Your task to perform on an android device: Open Reddit.com Image 0: 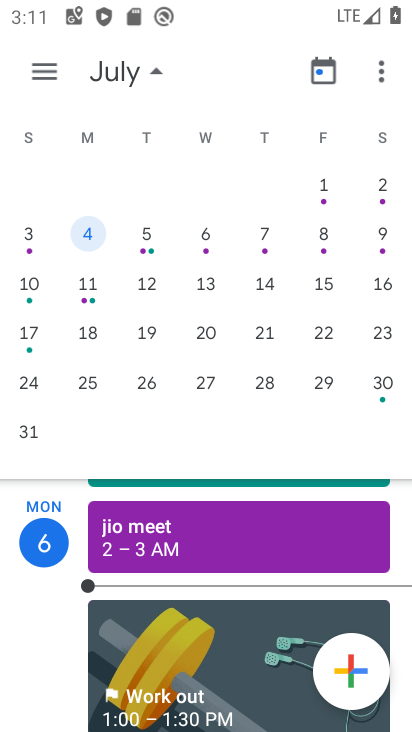
Step 0: press home button
Your task to perform on an android device: Open Reddit.com Image 1: 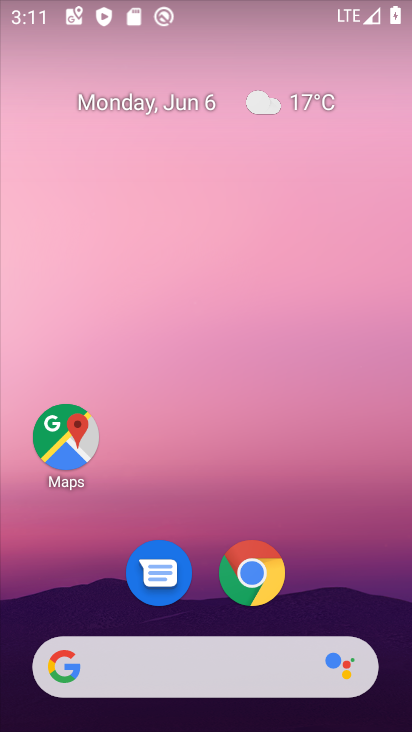
Step 1: drag from (348, 579) to (358, 237)
Your task to perform on an android device: Open Reddit.com Image 2: 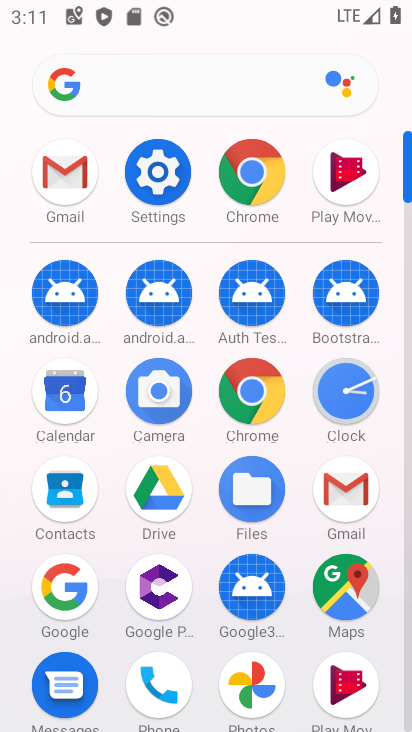
Step 2: click (252, 402)
Your task to perform on an android device: Open Reddit.com Image 3: 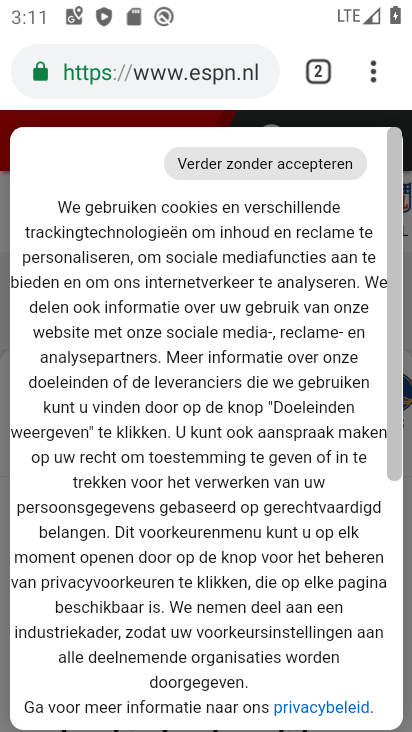
Step 3: click (192, 69)
Your task to perform on an android device: Open Reddit.com Image 4: 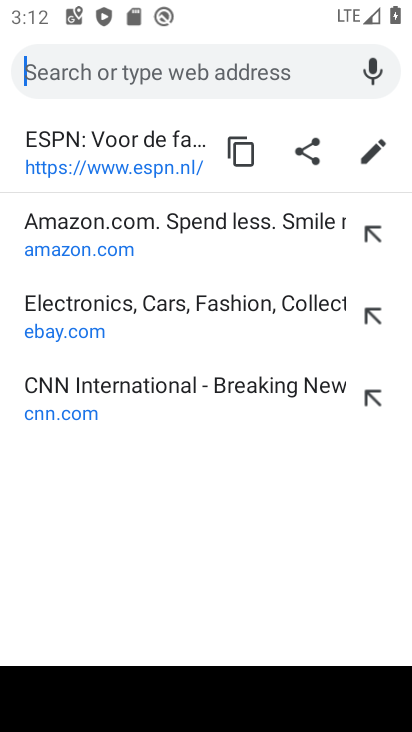
Step 4: type "reddit.com"
Your task to perform on an android device: Open Reddit.com Image 5: 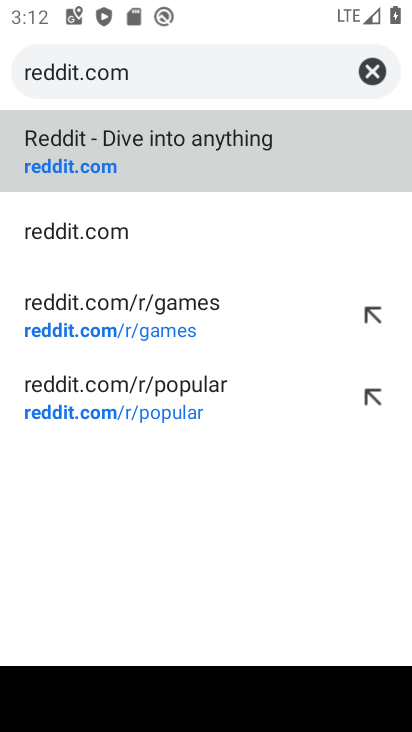
Step 5: click (142, 247)
Your task to perform on an android device: Open Reddit.com Image 6: 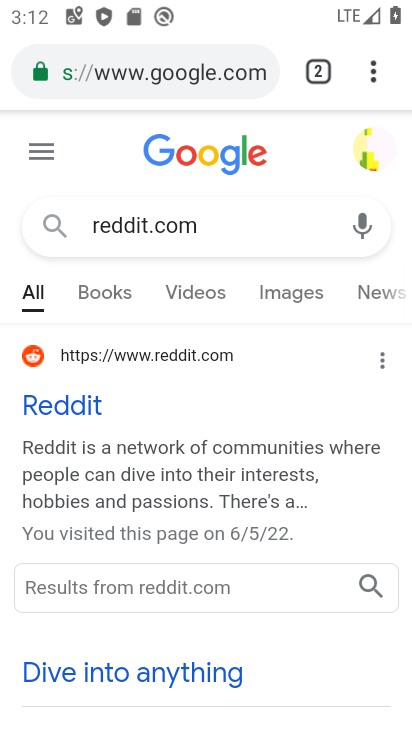
Step 6: task complete